Your task to perform on an android device: Open calendar and show me the fourth week of next month Image 0: 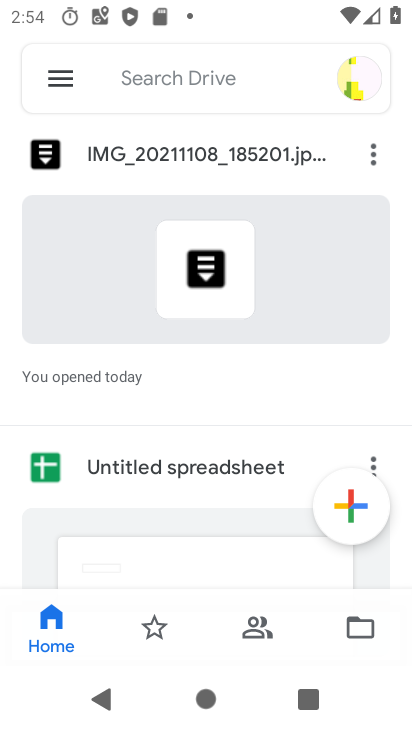
Step 0: press home button
Your task to perform on an android device: Open calendar and show me the fourth week of next month Image 1: 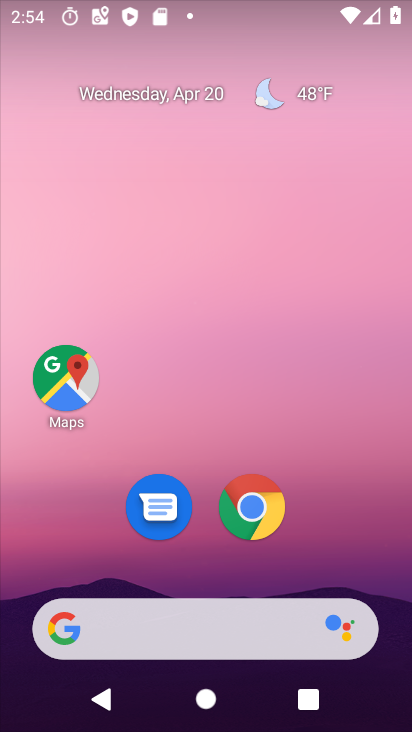
Step 1: drag from (152, 609) to (129, 135)
Your task to perform on an android device: Open calendar and show me the fourth week of next month Image 2: 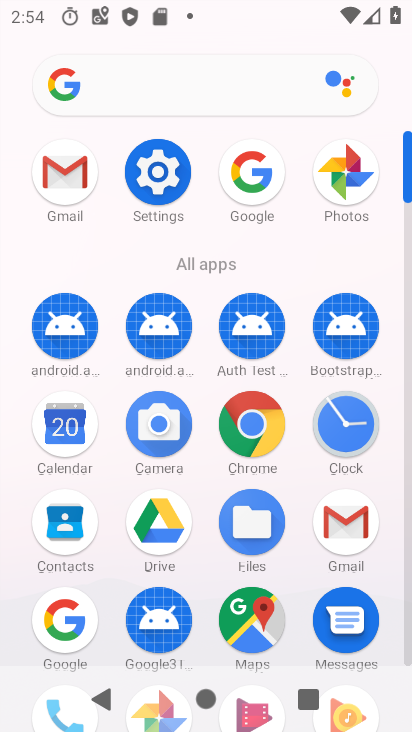
Step 2: click (81, 429)
Your task to perform on an android device: Open calendar and show me the fourth week of next month Image 3: 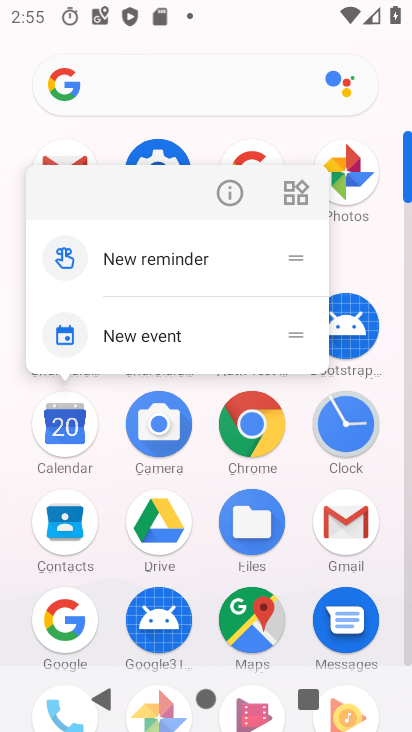
Step 3: click (76, 446)
Your task to perform on an android device: Open calendar and show me the fourth week of next month Image 4: 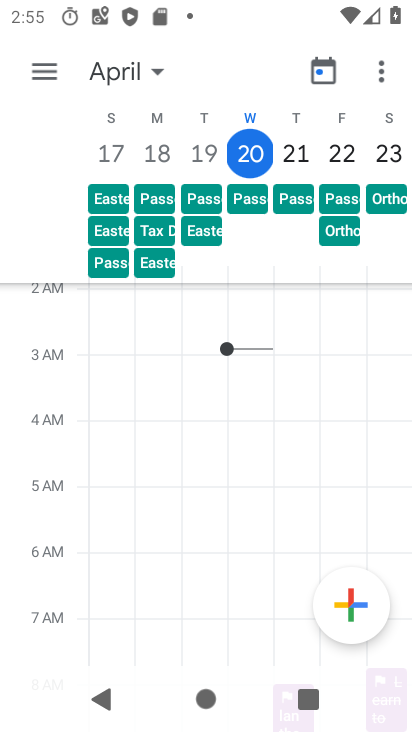
Step 4: click (40, 65)
Your task to perform on an android device: Open calendar and show me the fourth week of next month Image 5: 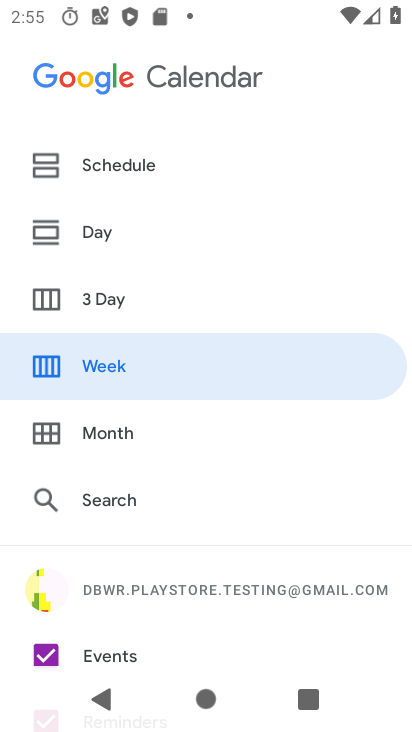
Step 5: click (108, 423)
Your task to perform on an android device: Open calendar and show me the fourth week of next month Image 6: 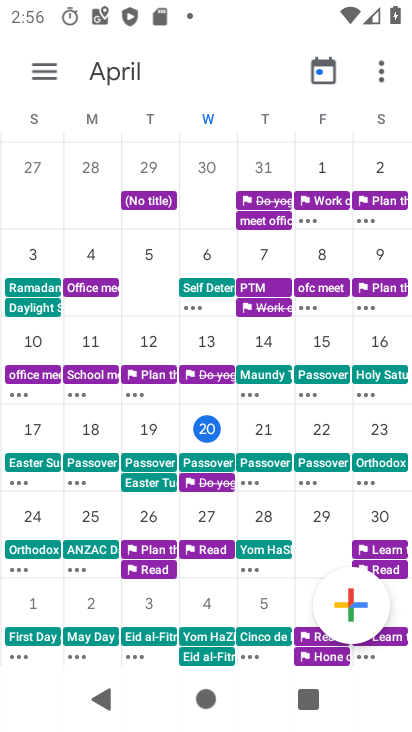
Step 6: task complete